Your task to perform on an android device: Open Android settings Image 0: 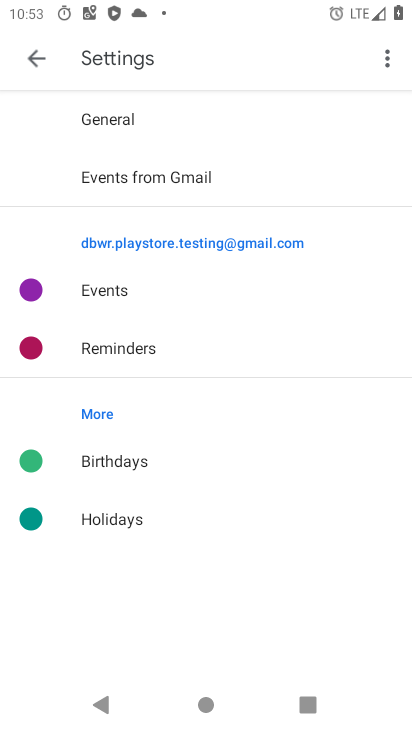
Step 0: press home button
Your task to perform on an android device: Open Android settings Image 1: 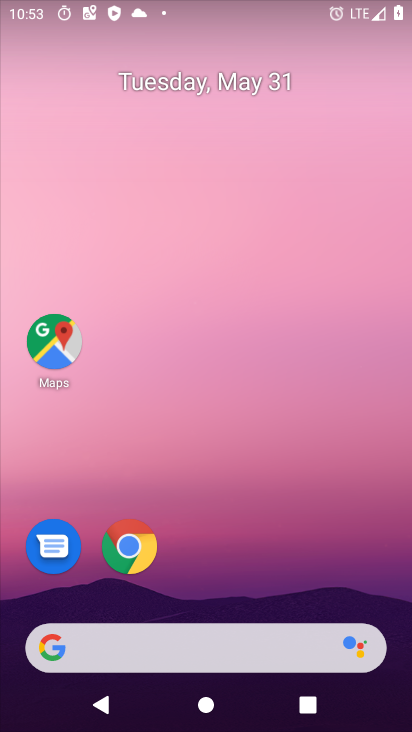
Step 1: drag from (207, 590) to (175, 360)
Your task to perform on an android device: Open Android settings Image 2: 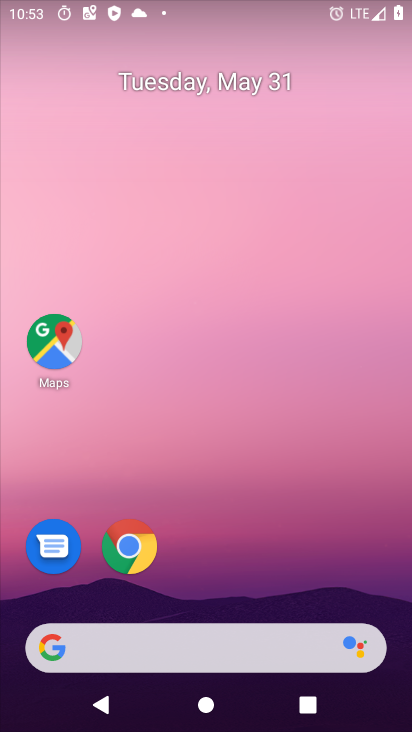
Step 2: drag from (235, 594) to (224, 331)
Your task to perform on an android device: Open Android settings Image 3: 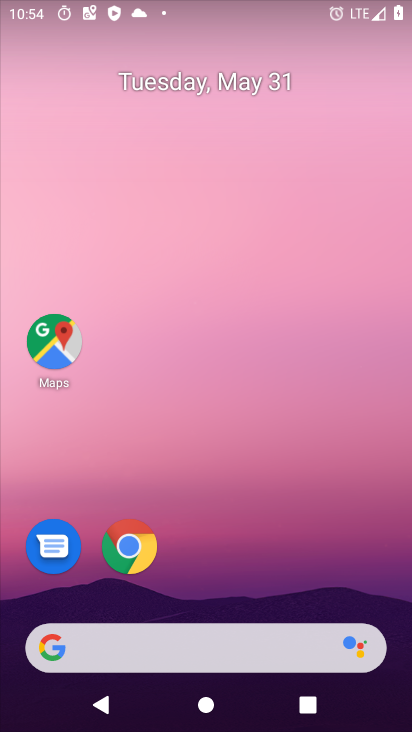
Step 3: drag from (178, 584) to (212, 184)
Your task to perform on an android device: Open Android settings Image 4: 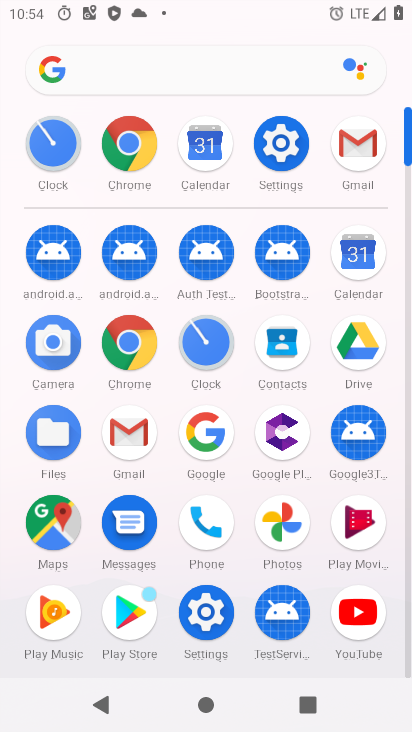
Step 4: click (273, 147)
Your task to perform on an android device: Open Android settings Image 5: 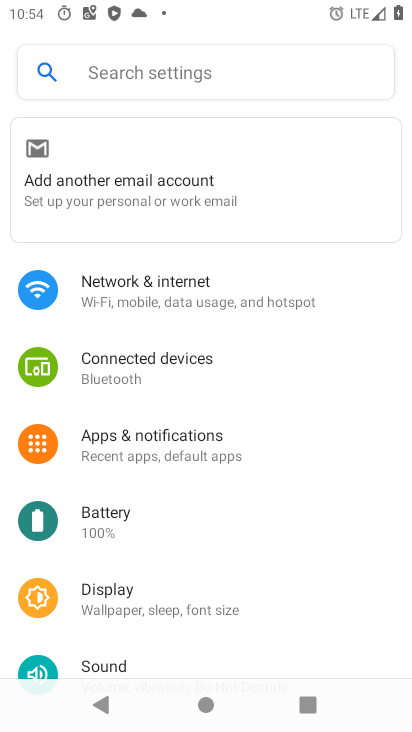
Step 5: task complete